Your task to perform on an android device: toggle notification dots Image 0: 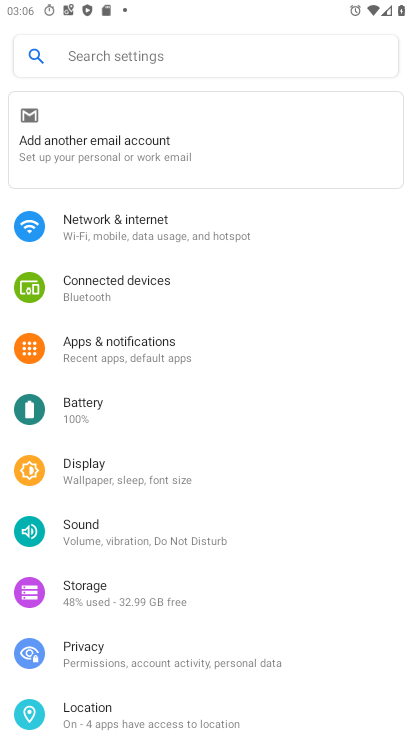
Step 0: press home button
Your task to perform on an android device: toggle notification dots Image 1: 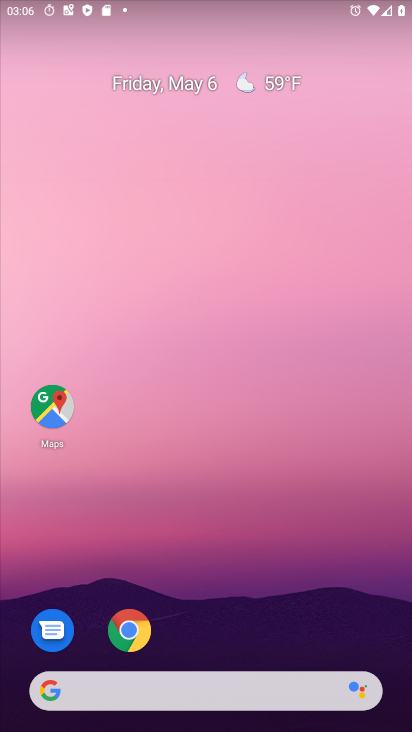
Step 1: drag from (245, 612) to (231, 255)
Your task to perform on an android device: toggle notification dots Image 2: 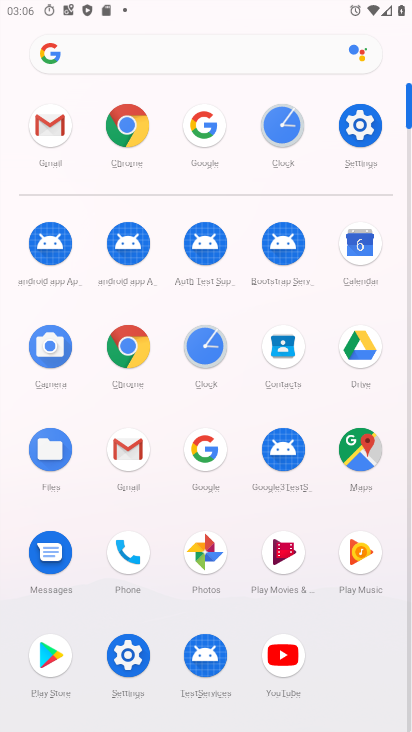
Step 2: click (360, 137)
Your task to perform on an android device: toggle notification dots Image 3: 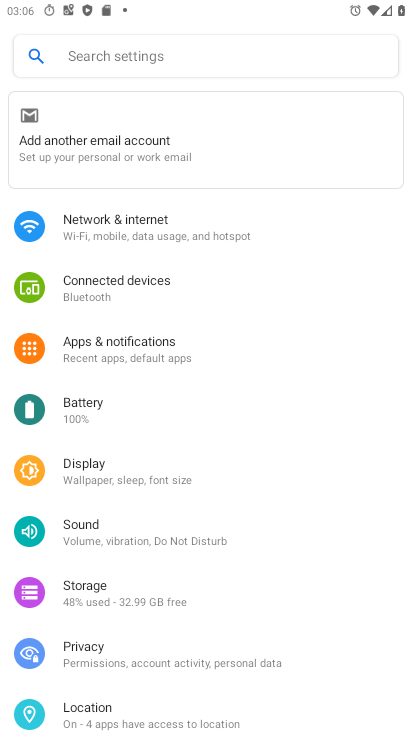
Step 3: click (158, 351)
Your task to perform on an android device: toggle notification dots Image 4: 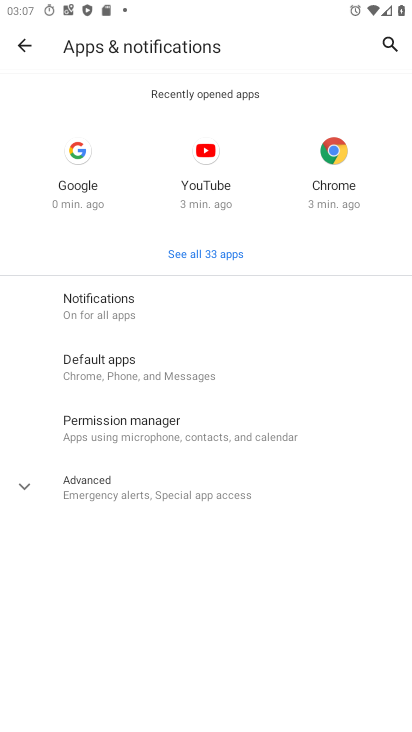
Step 4: click (125, 314)
Your task to perform on an android device: toggle notification dots Image 5: 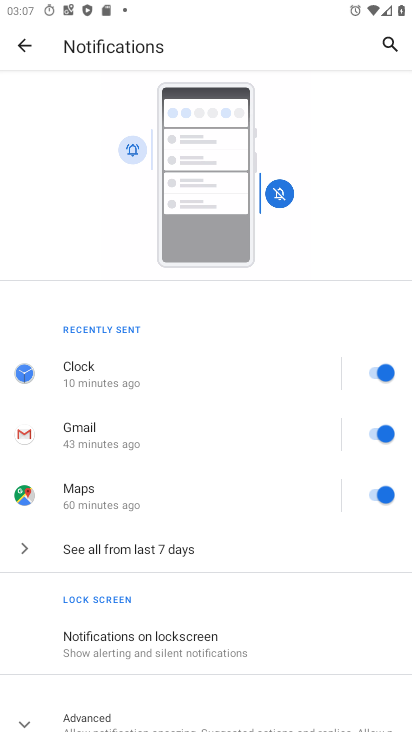
Step 5: drag from (208, 687) to (238, 330)
Your task to perform on an android device: toggle notification dots Image 6: 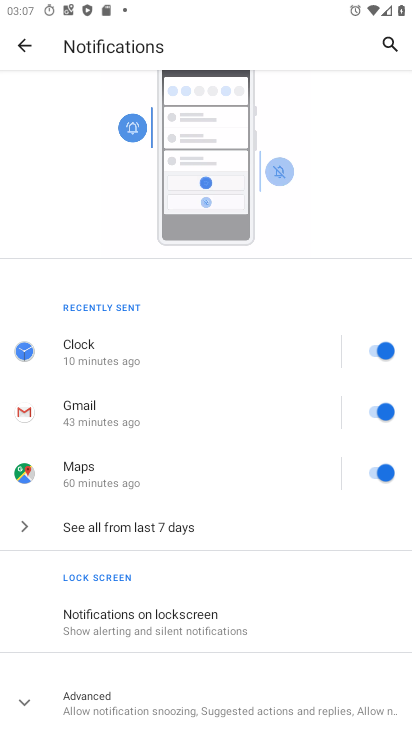
Step 6: click (106, 705)
Your task to perform on an android device: toggle notification dots Image 7: 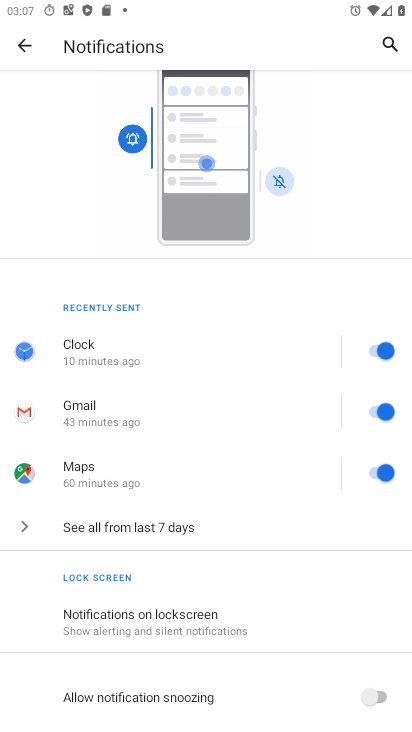
Step 7: drag from (256, 666) to (293, 450)
Your task to perform on an android device: toggle notification dots Image 8: 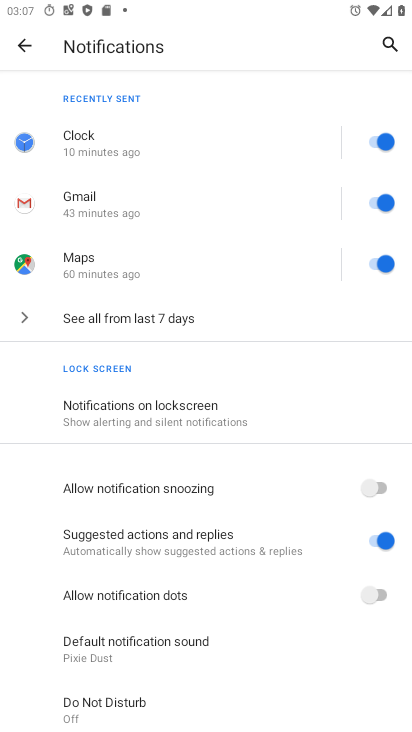
Step 8: click (377, 591)
Your task to perform on an android device: toggle notification dots Image 9: 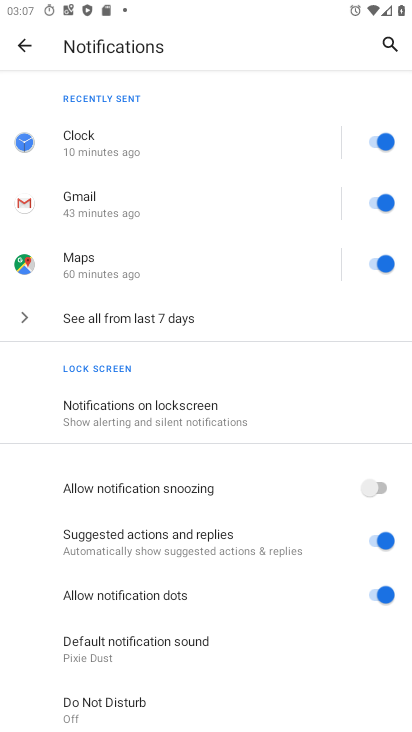
Step 9: task complete